Your task to perform on an android device: turn vacation reply on in the gmail app Image 0: 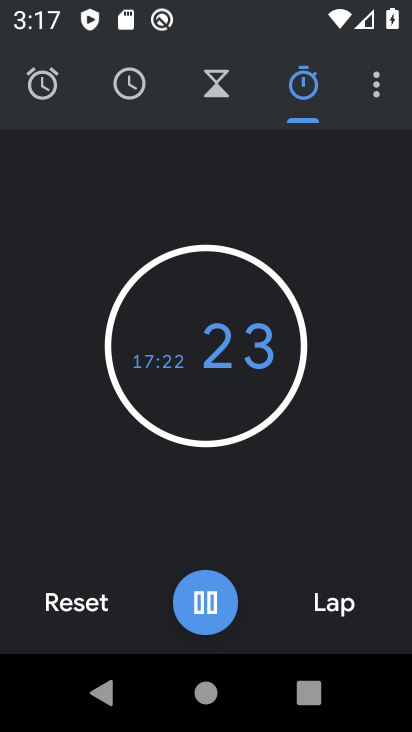
Step 0: press home button
Your task to perform on an android device: turn vacation reply on in the gmail app Image 1: 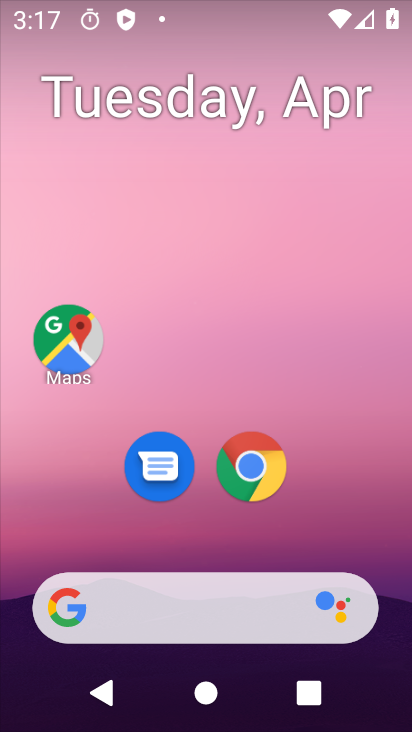
Step 1: drag from (196, 539) to (148, 0)
Your task to perform on an android device: turn vacation reply on in the gmail app Image 2: 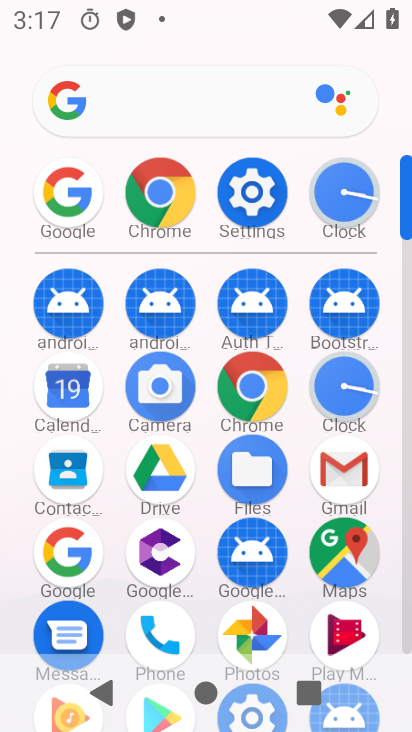
Step 2: click (358, 459)
Your task to perform on an android device: turn vacation reply on in the gmail app Image 3: 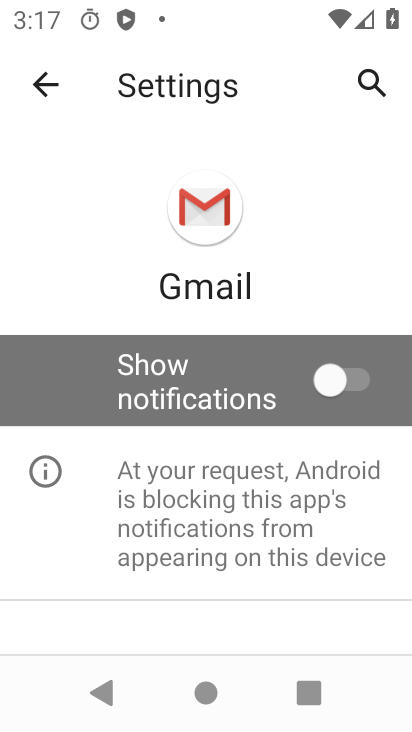
Step 3: click (34, 71)
Your task to perform on an android device: turn vacation reply on in the gmail app Image 4: 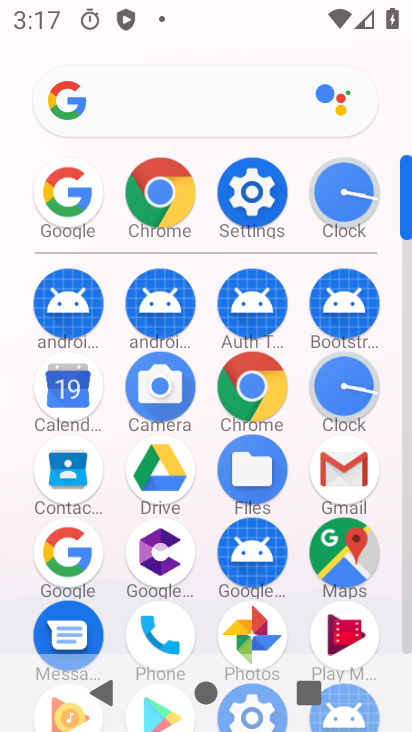
Step 4: click (331, 472)
Your task to perform on an android device: turn vacation reply on in the gmail app Image 5: 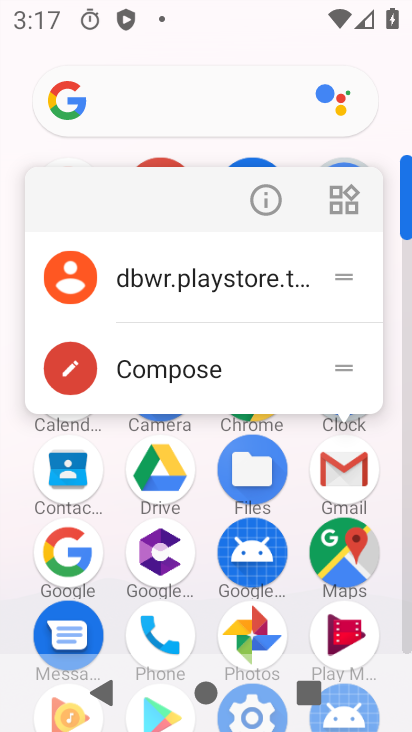
Step 5: click (341, 466)
Your task to perform on an android device: turn vacation reply on in the gmail app Image 6: 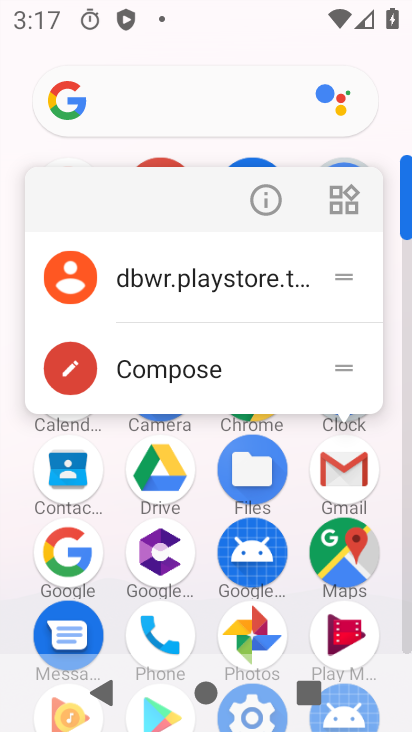
Step 6: click (342, 466)
Your task to perform on an android device: turn vacation reply on in the gmail app Image 7: 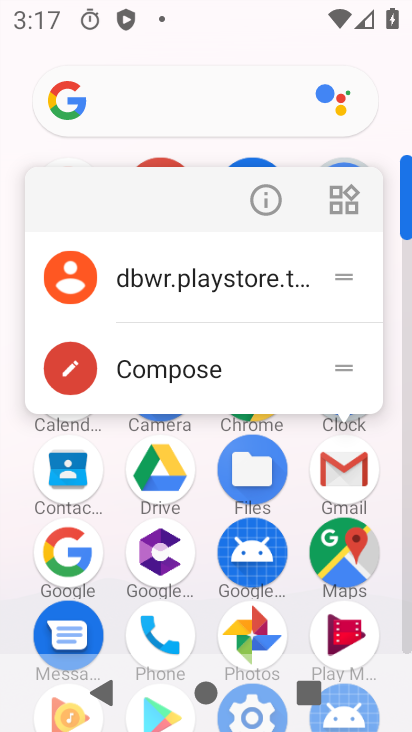
Step 7: click (339, 466)
Your task to perform on an android device: turn vacation reply on in the gmail app Image 8: 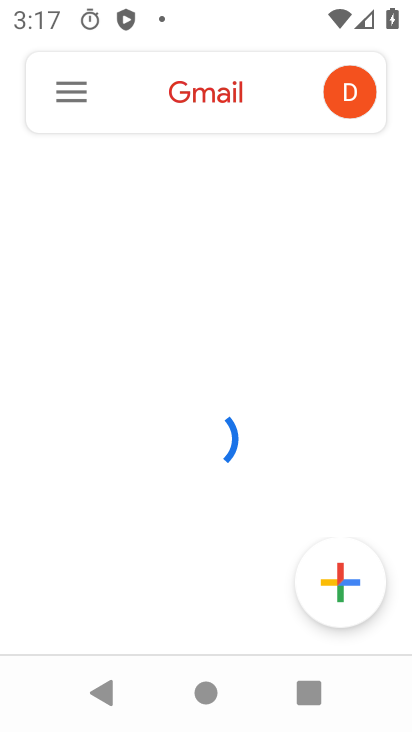
Step 8: click (46, 90)
Your task to perform on an android device: turn vacation reply on in the gmail app Image 9: 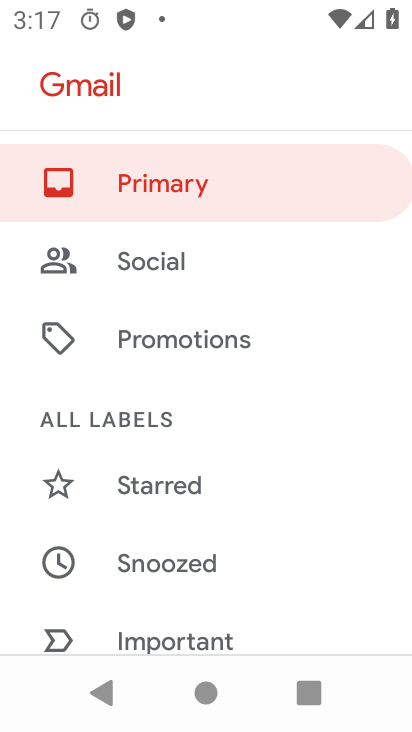
Step 9: drag from (101, 595) to (21, 6)
Your task to perform on an android device: turn vacation reply on in the gmail app Image 10: 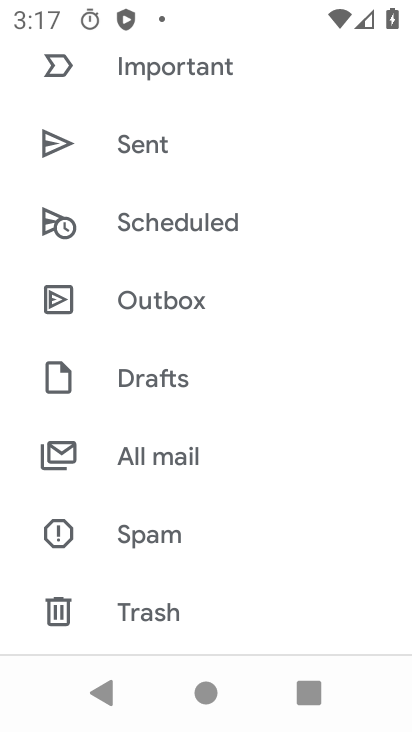
Step 10: drag from (129, 572) to (69, 99)
Your task to perform on an android device: turn vacation reply on in the gmail app Image 11: 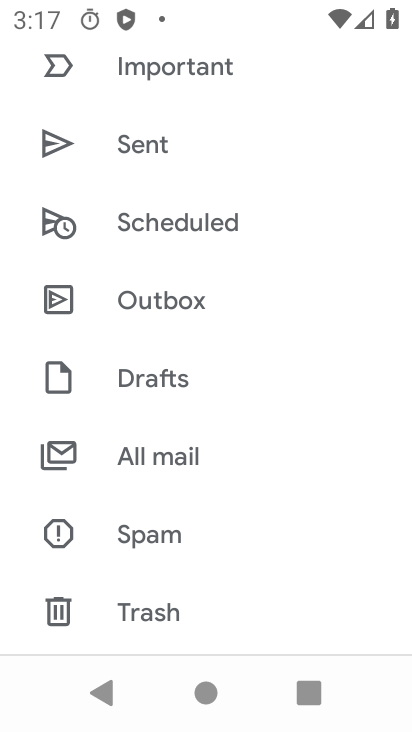
Step 11: drag from (117, 598) to (91, 118)
Your task to perform on an android device: turn vacation reply on in the gmail app Image 12: 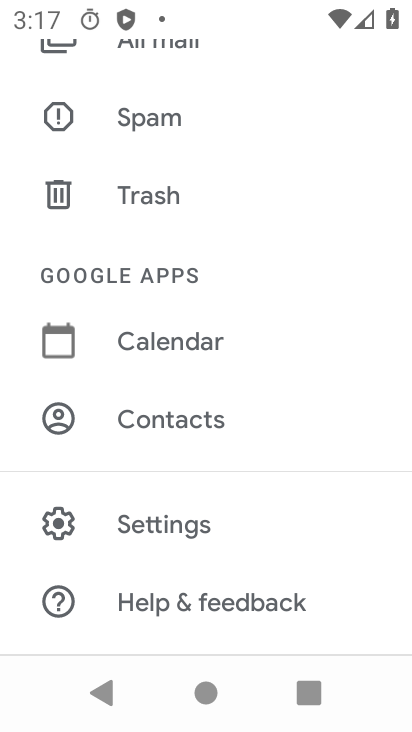
Step 12: click (141, 535)
Your task to perform on an android device: turn vacation reply on in the gmail app Image 13: 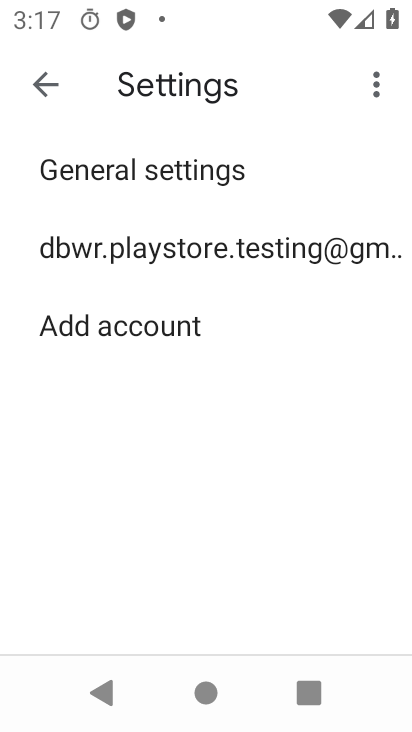
Step 13: click (99, 246)
Your task to perform on an android device: turn vacation reply on in the gmail app Image 14: 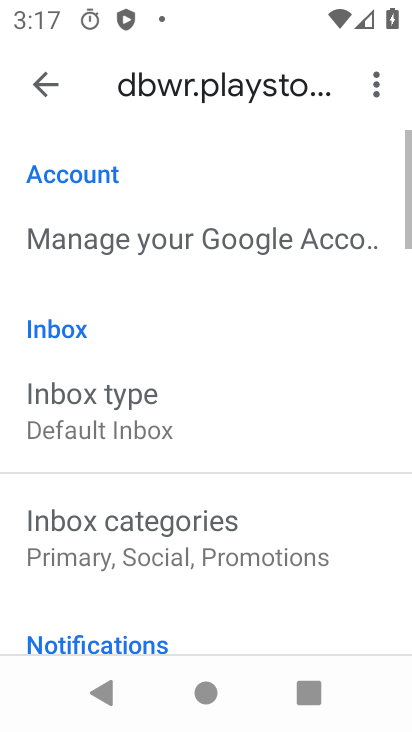
Step 14: drag from (118, 611) to (88, 60)
Your task to perform on an android device: turn vacation reply on in the gmail app Image 15: 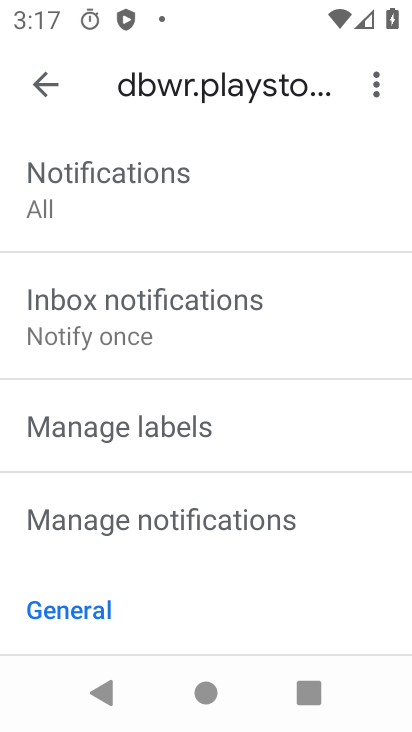
Step 15: drag from (73, 537) to (31, 68)
Your task to perform on an android device: turn vacation reply on in the gmail app Image 16: 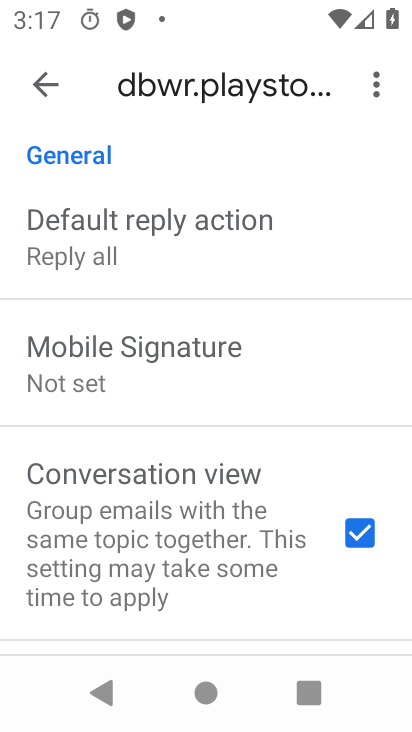
Step 16: drag from (106, 564) to (35, 107)
Your task to perform on an android device: turn vacation reply on in the gmail app Image 17: 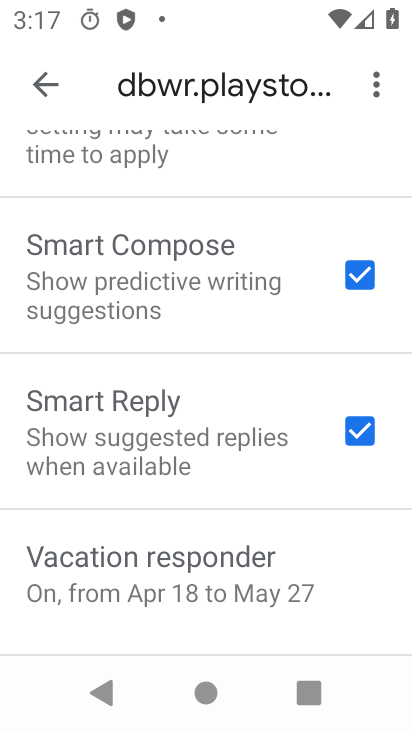
Step 17: click (107, 556)
Your task to perform on an android device: turn vacation reply on in the gmail app Image 18: 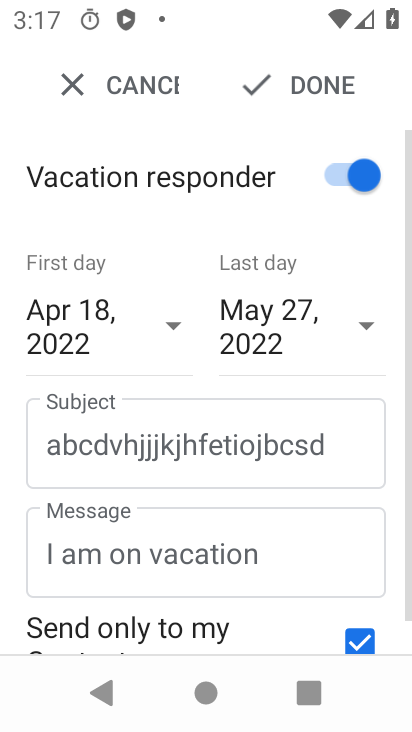
Step 18: click (333, 89)
Your task to perform on an android device: turn vacation reply on in the gmail app Image 19: 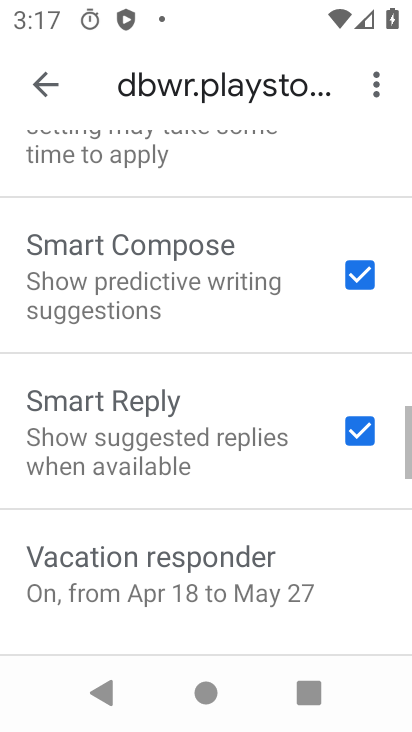
Step 19: task complete